Your task to perform on an android device: Add macbook air to the cart on bestbuy.com Image 0: 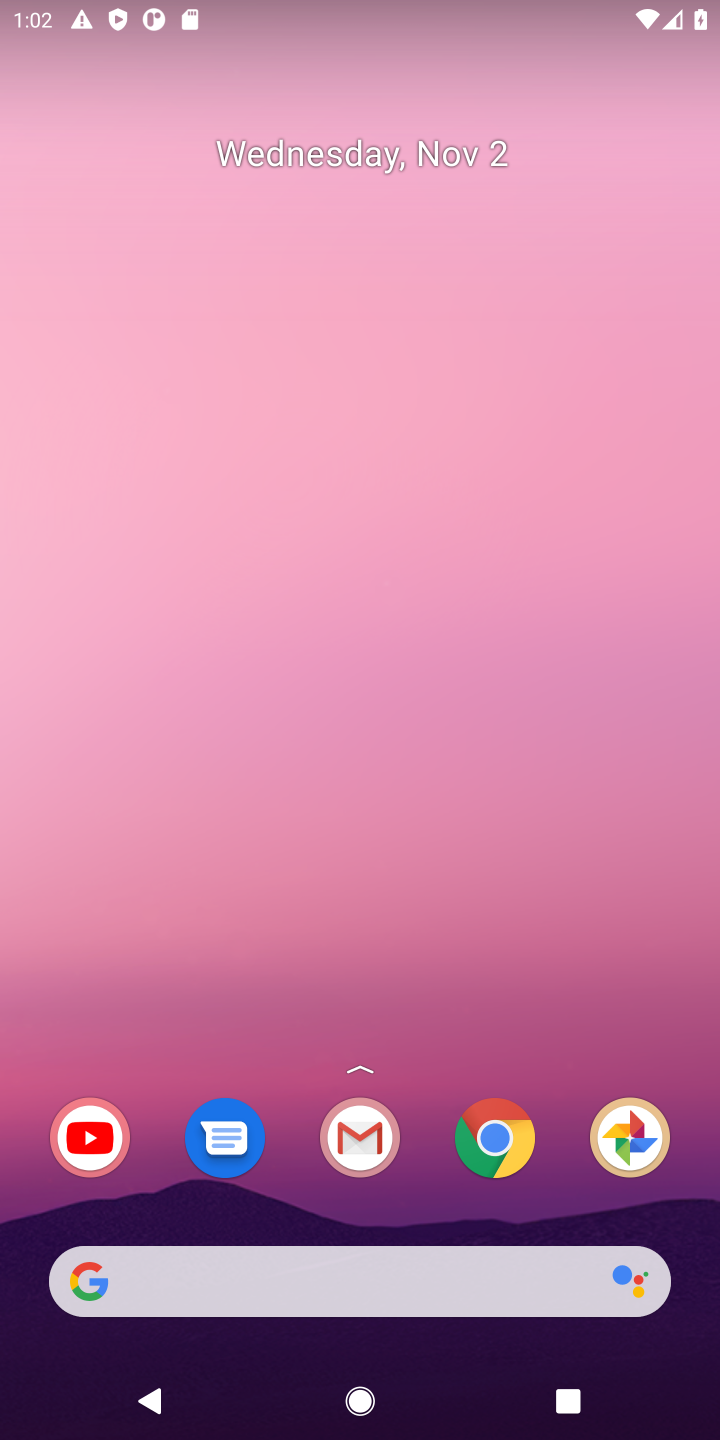
Step 0: press home button
Your task to perform on an android device: Add macbook air to the cart on bestbuy.com Image 1: 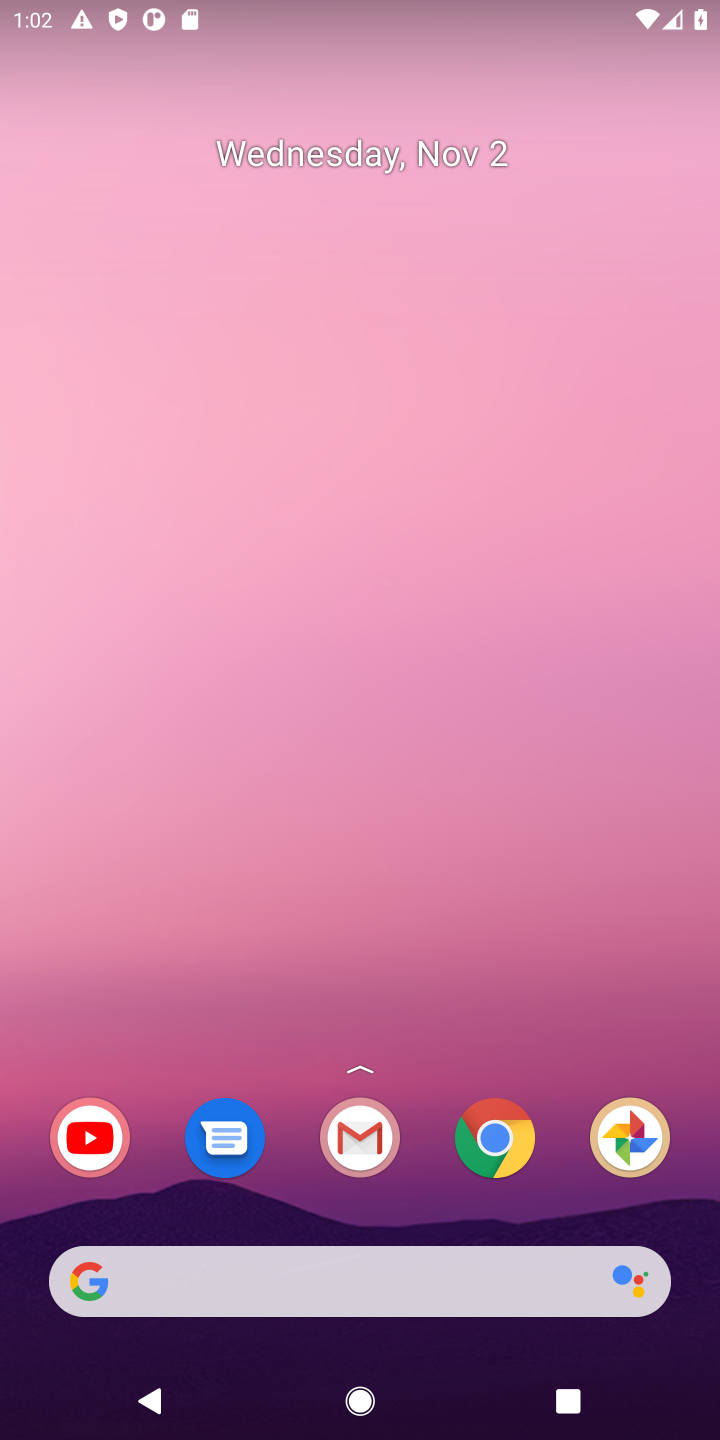
Step 1: click (159, 1274)
Your task to perform on an android device: Add macbook air to the cart on bestbuy.com Image 2: 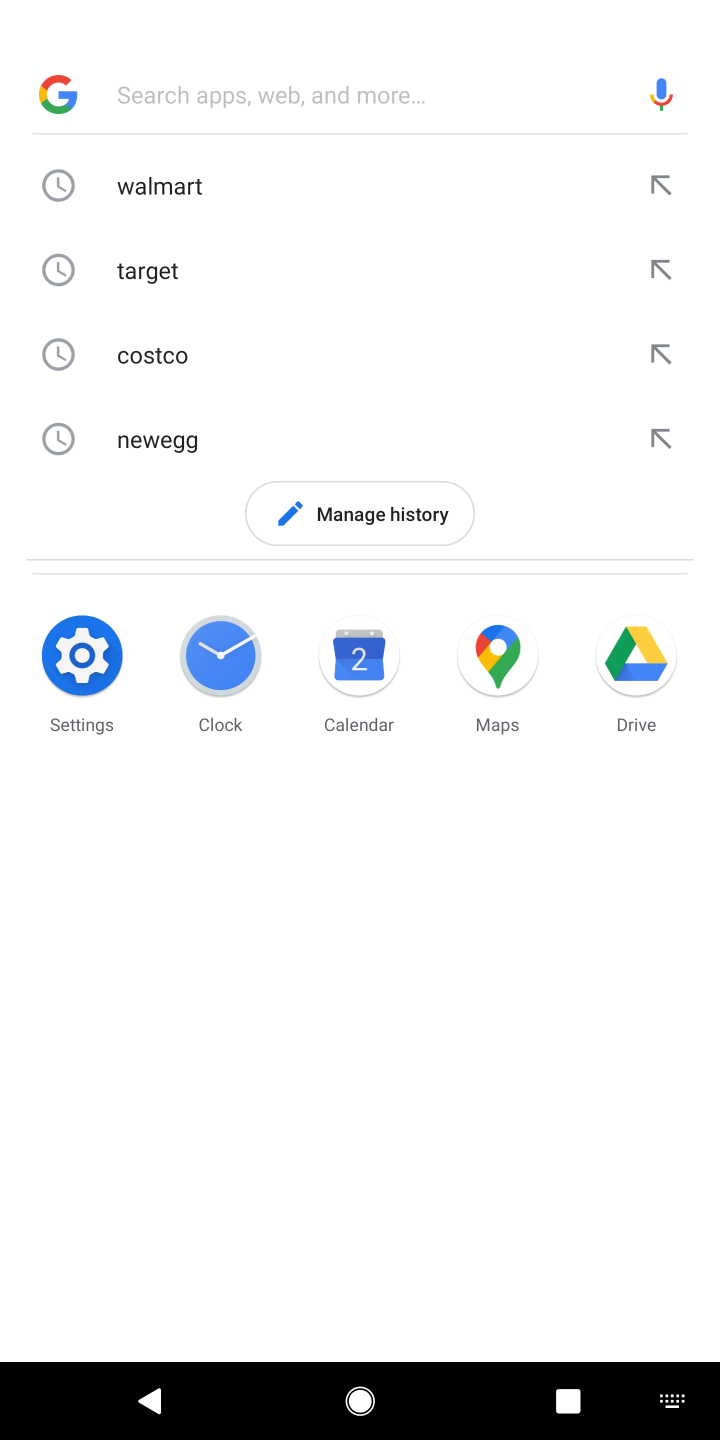
Step 2: type "bestbuy.com"
Your task to perform on an android device: Add macbook air to the cart on bestbuy.com Image 3: 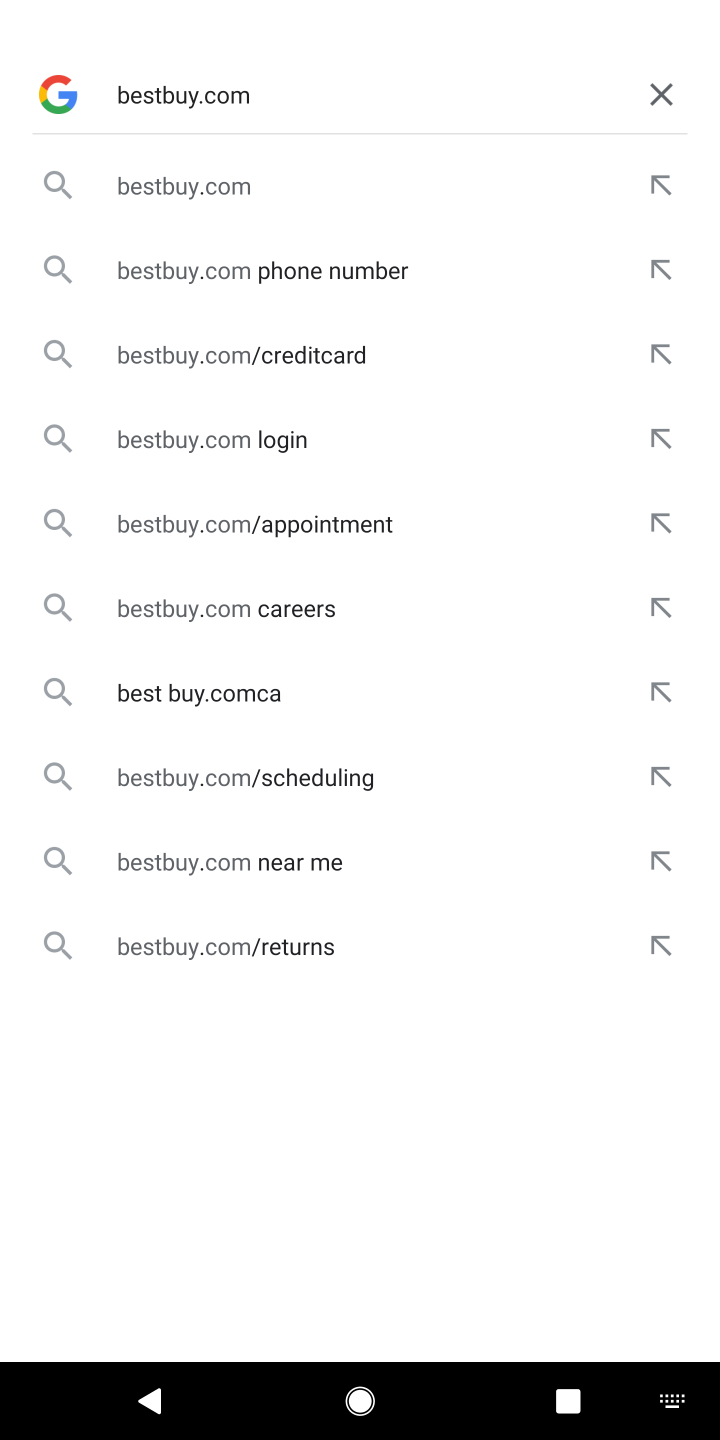
Step 3: press enter
Your task to perform on an android device: Add macbook air to the cart on bestbuy.com Image 4: 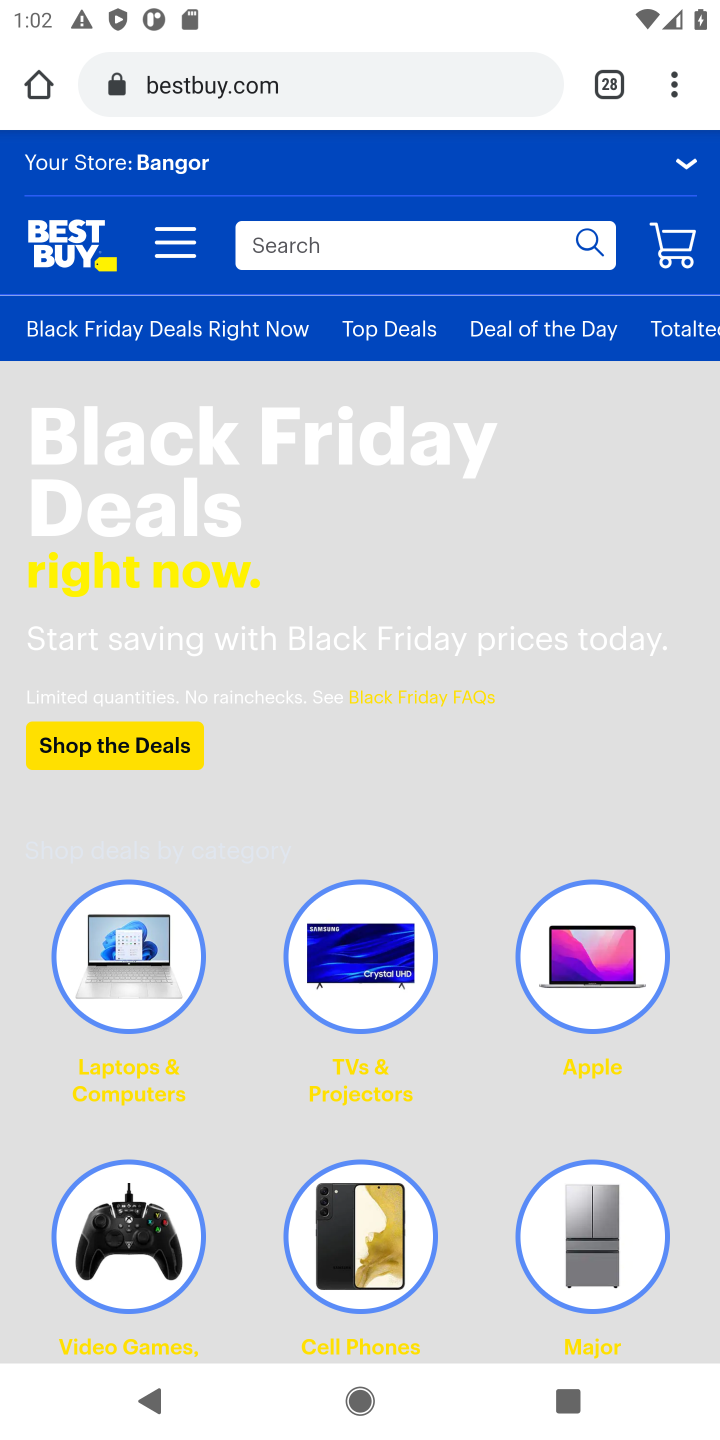
Step 4: click (286, 244)
Your task to perform on an android device: Add macbook air to the cart on bestbuy.com Image 5: 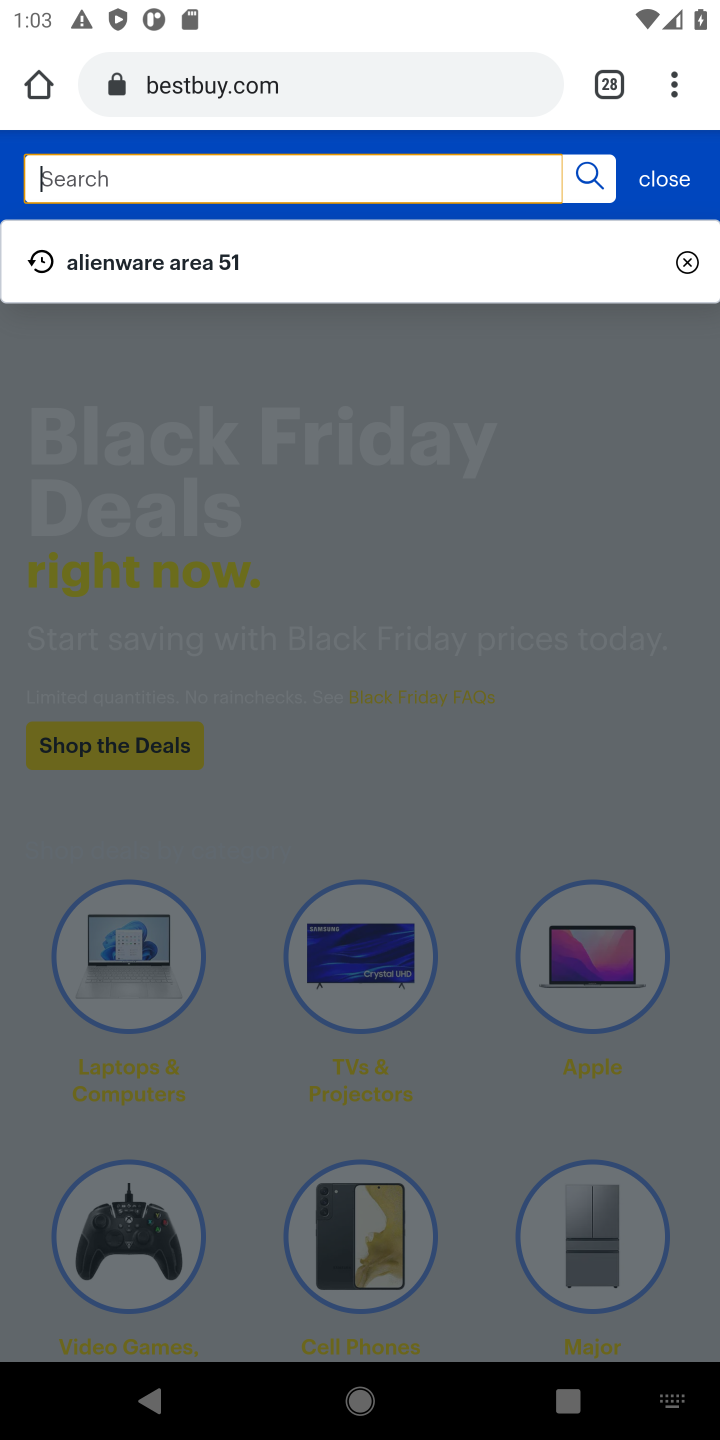
Step 5: type "macbook air"
Your task to perform on an android device: Add macbook air to the cart on bestbuy.com Image 6: 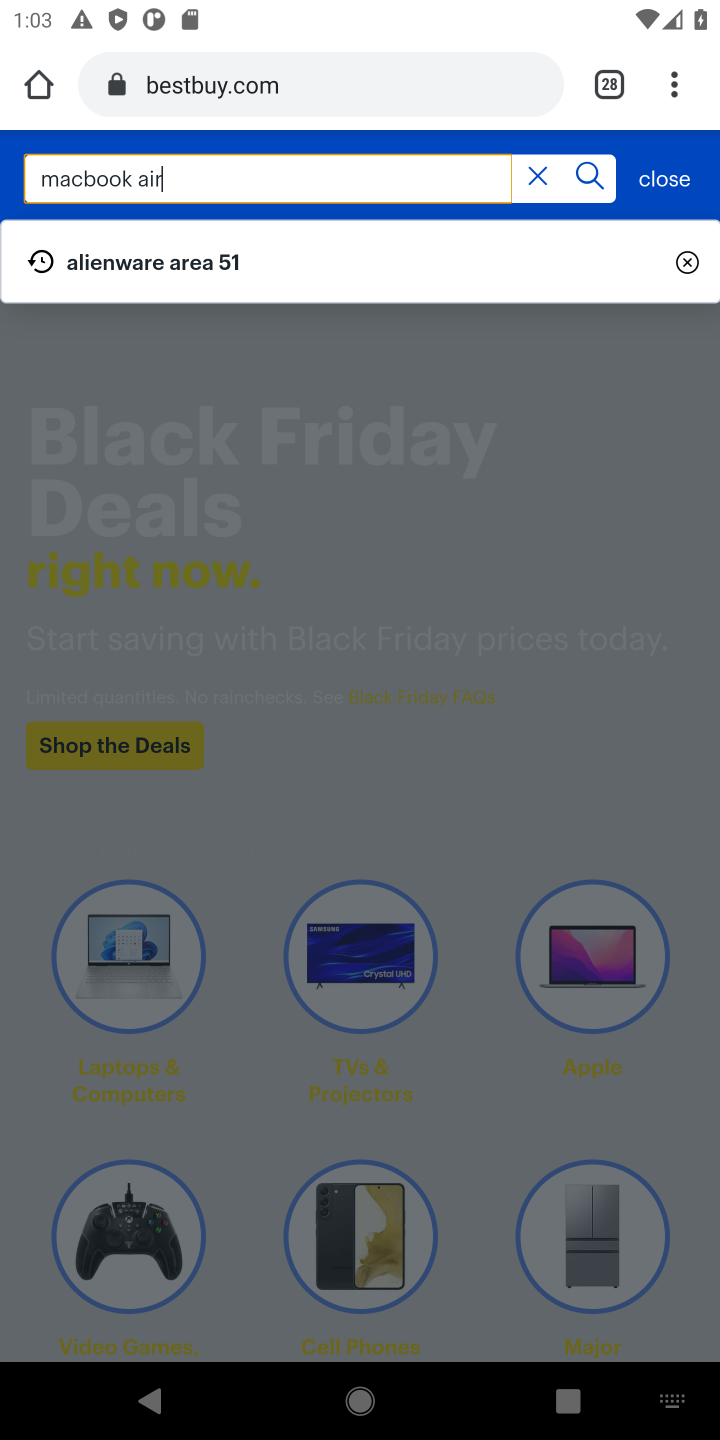
Step 6: press enter
Your task to perform on an android device: Add macbook air to the cart on bestbuy.com Image 7: 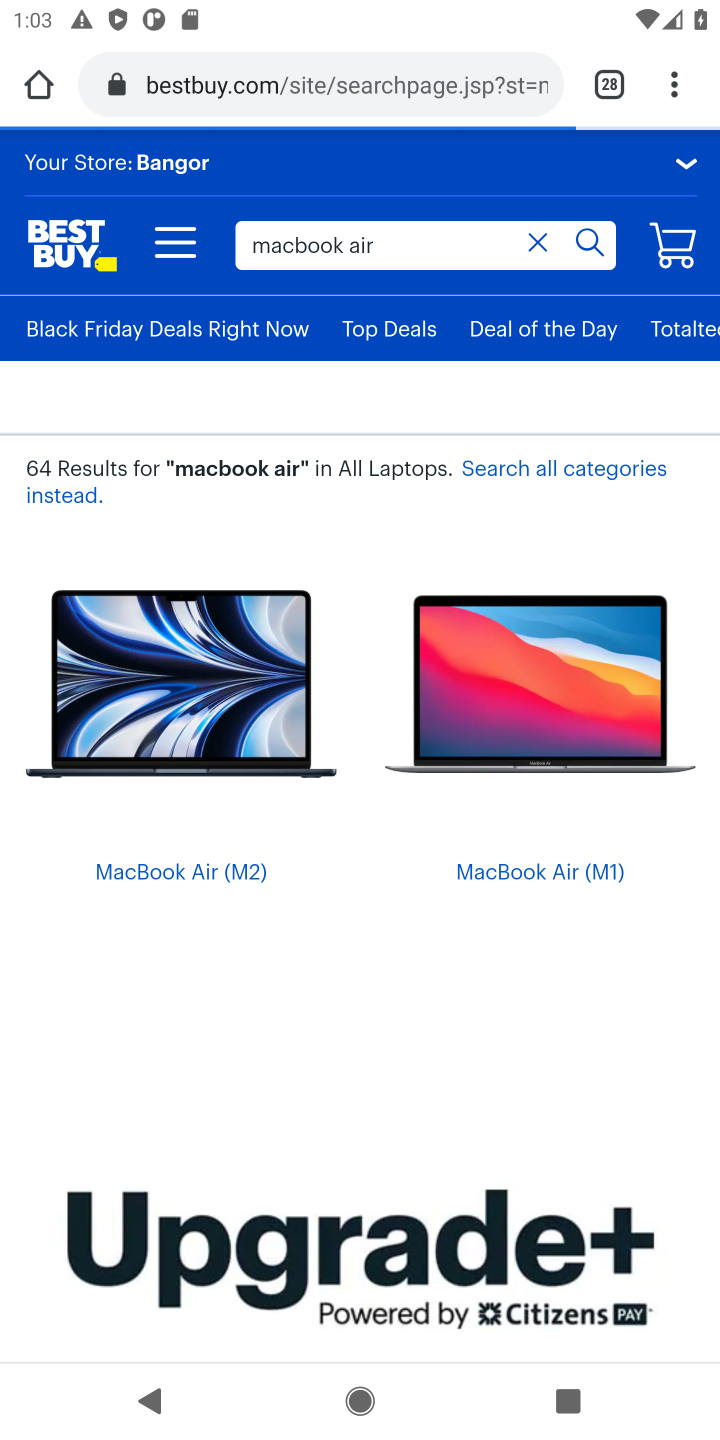
Step 7: drag from (498, 1100) to (515, 599)
Your task to perform on an android device: Add macbook air to the cart on bestbuy.com Image 8: 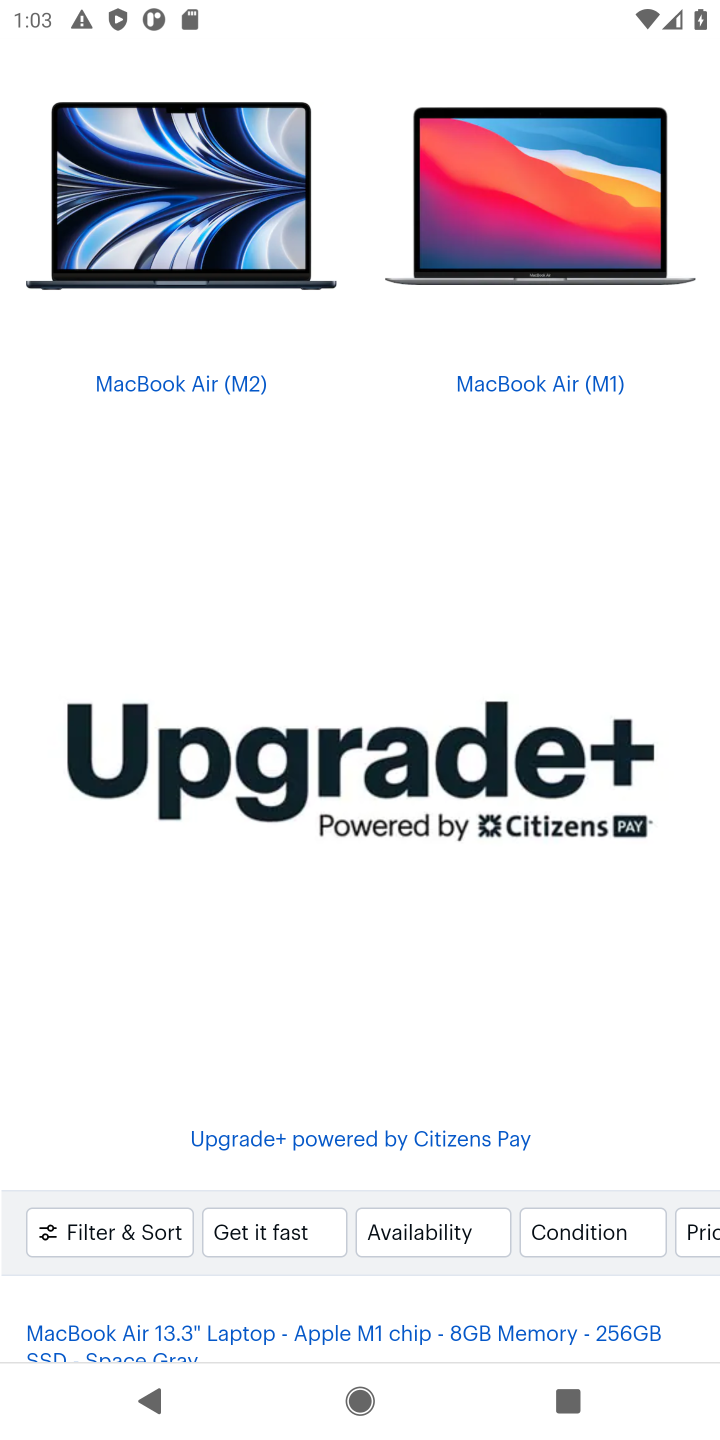
Step 8: drag from (504, 964) to (493, 528)
Your task to perform on an android device: Add macbook air to the cart on bestbuy.com Image 9: 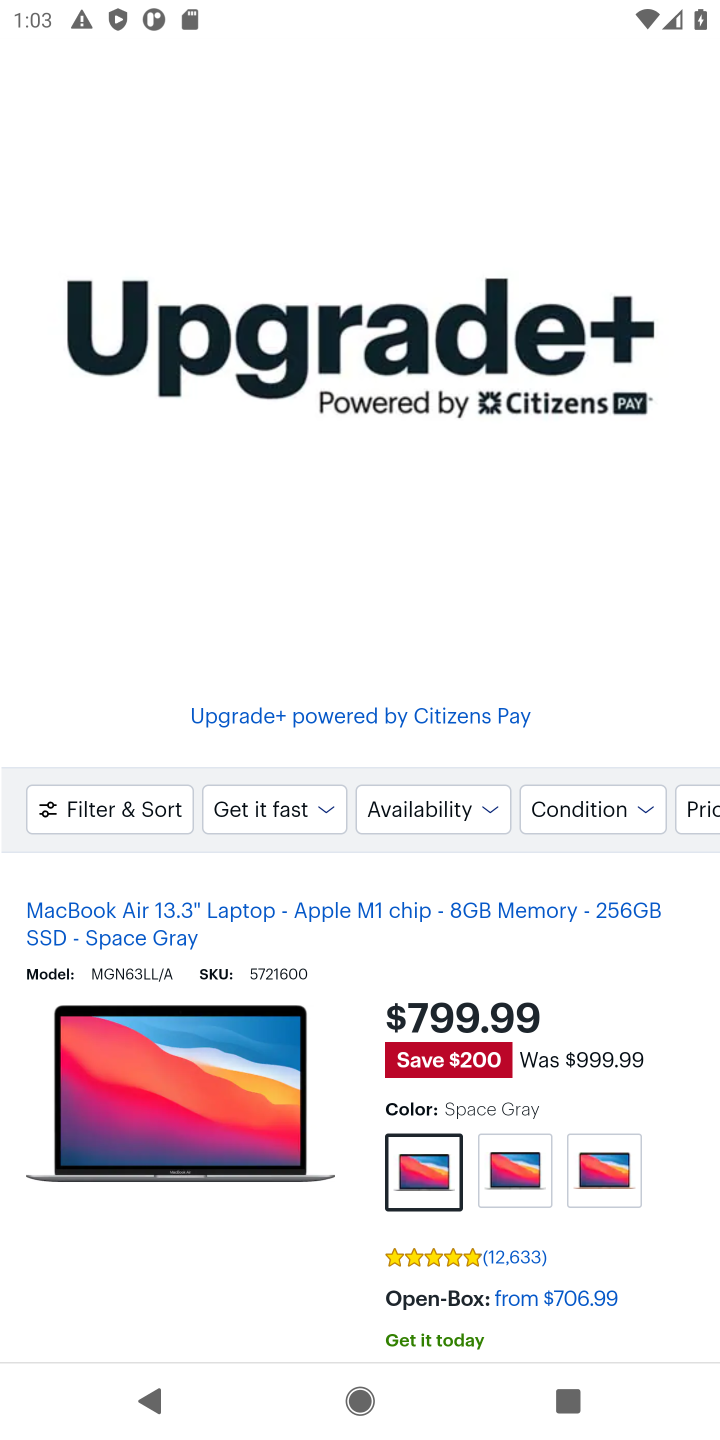
Step 9: drag from (337, 1061) to (343, 664)
Your task to perform on an android device: Add macbook air to the cart on bestbuy.com Image 10: 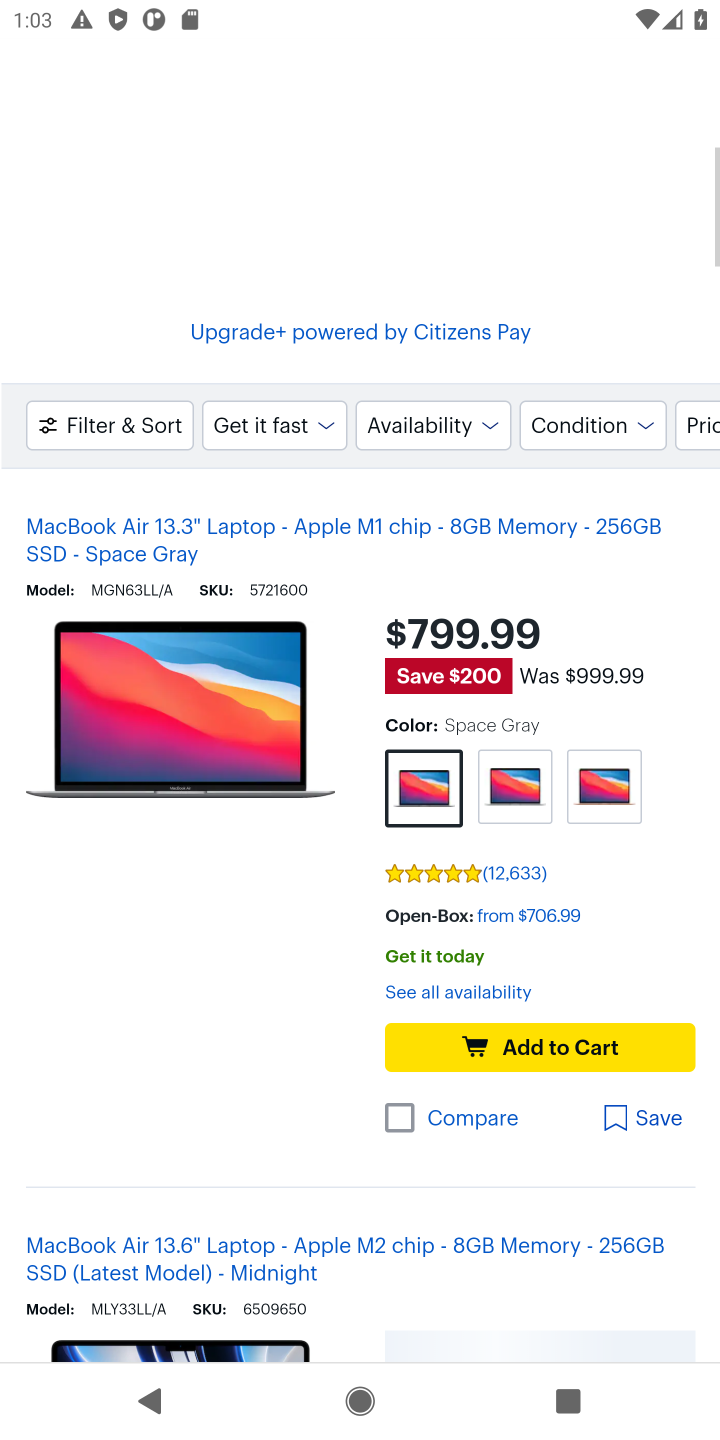
Step 10: drag from (321, 1109) to (340, 704)
Your task to perform on an android device: Add macbook air to the cart on bestbuy.com Image 11: 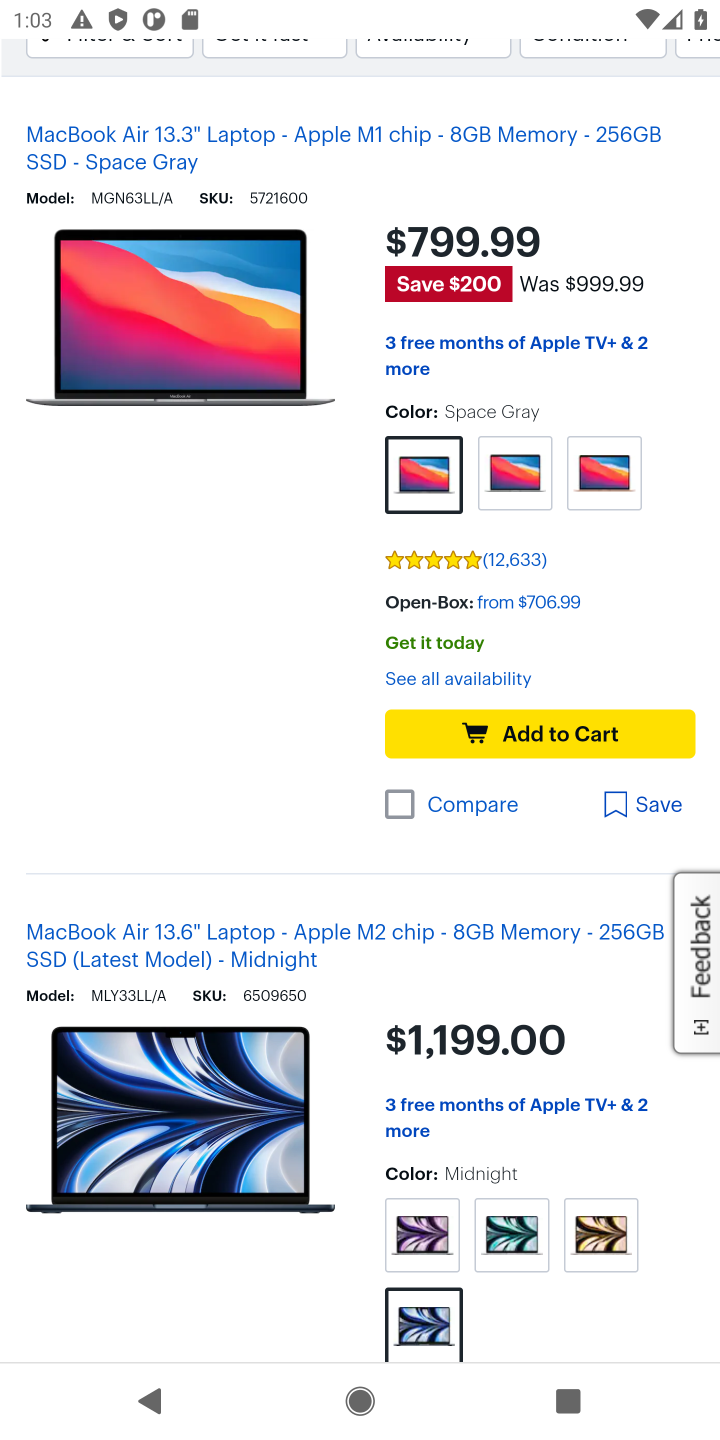
Step 11: click (519, 728)
Your task to perform on an android device: Add macbook air to the cart on bestbuy.com Image 12: 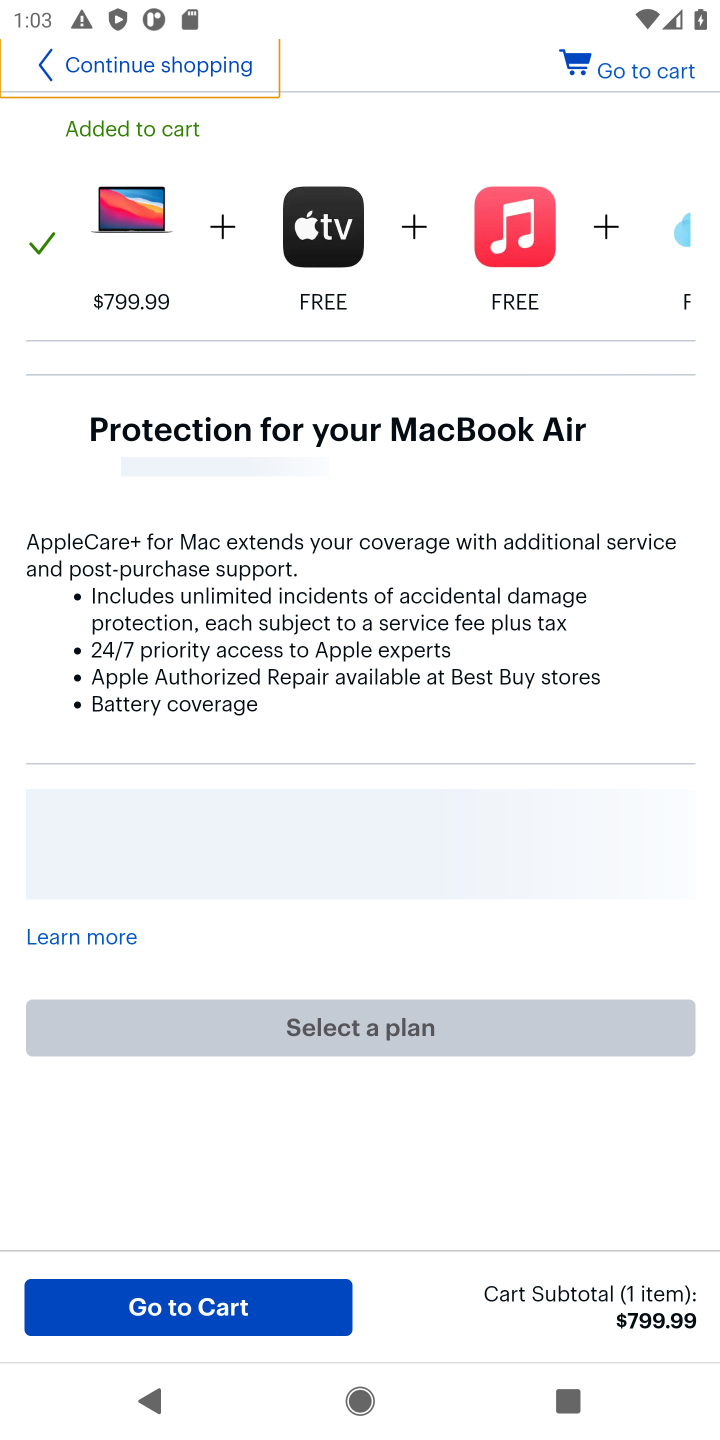
Step 12: task complete